Your task to perform on an android device: open chrome and create a bookmark for the current page Image 0: 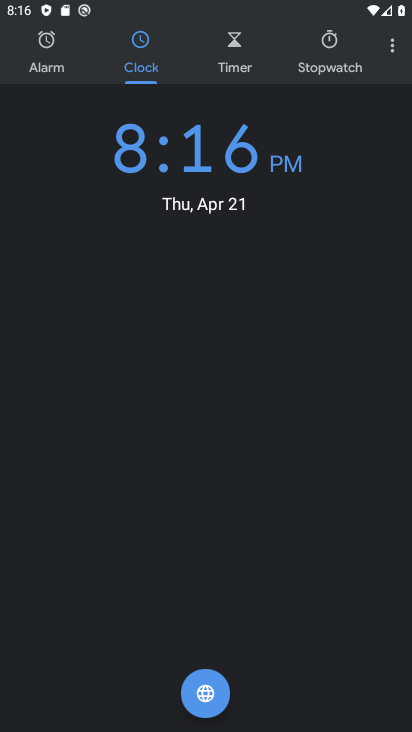
Step 0: press home button
Your task to perform on an android device: open chrome and create a bookmark for the current page Image 1: 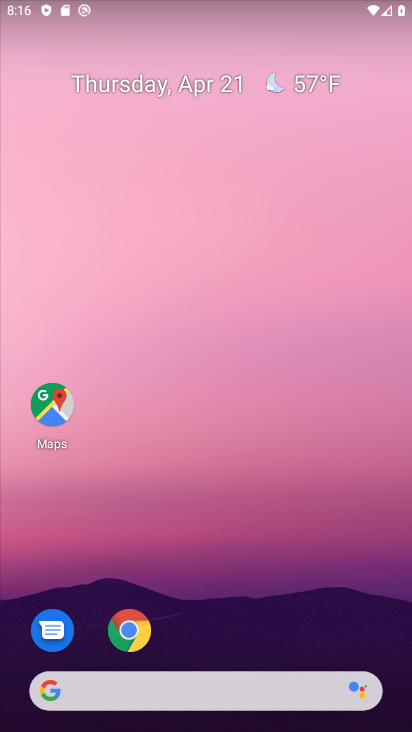
Step 1: click (118, 623)
Your task to perform on an android device: open chrome and create a bookmark for the current page Image 2: 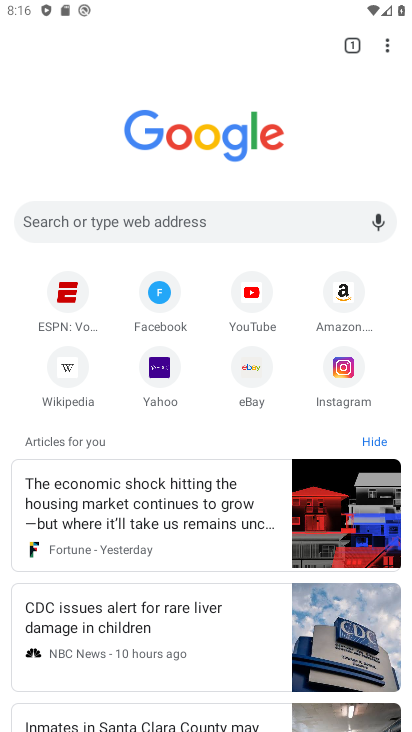
Step 2: click (187, 517)
Your task to perform on an android device: open chrome and create a bookmark for the current page Image 3: 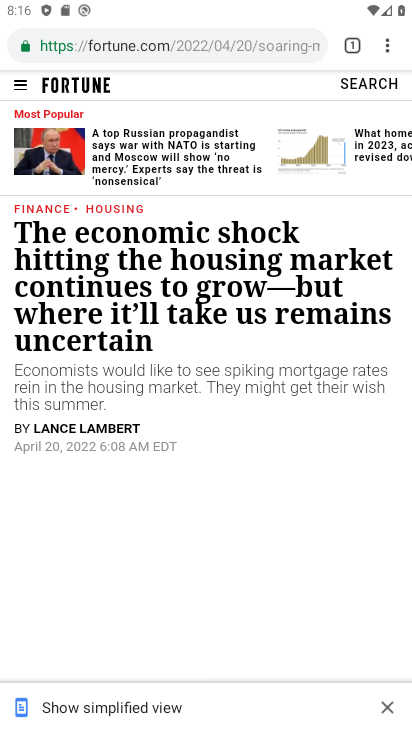
Step 3: click (386, 41)
Your task to perform on an android device: open chrome and create a bookmark for the current page Image 4: 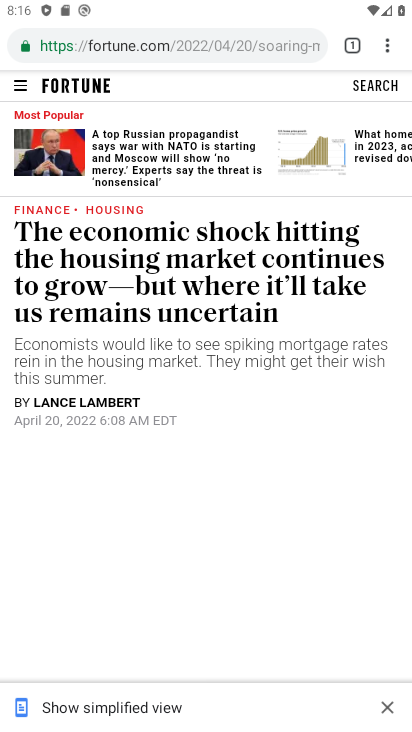
Step 4: click (387, 39)
Your task to perform on an android device: open chrome and create a bookmark for the current page Image 5: 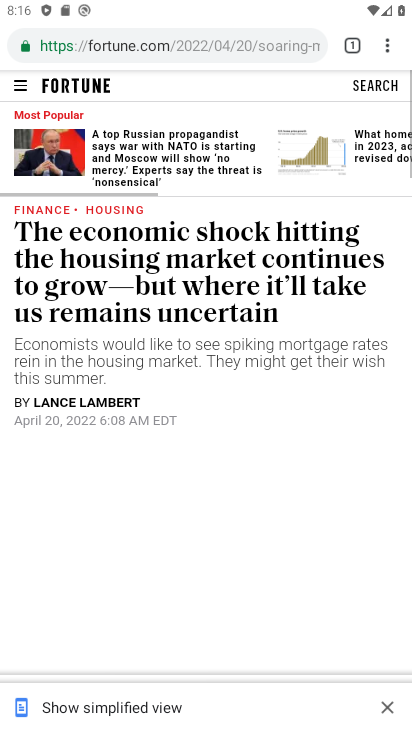
Step 5: click (389, 41)
Your task to perform on an android device: open chrome and create a bookmark for the current page Image 6: 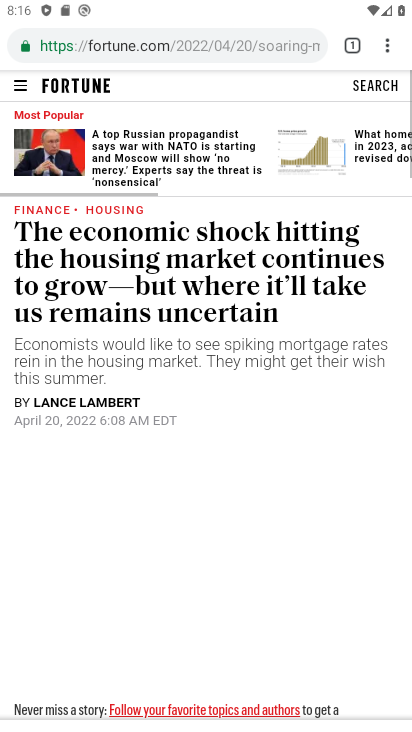
Step 6: click (383, 40)
Your task to perform on an android device: open chrome and create a bookmark for the current page Image 7: 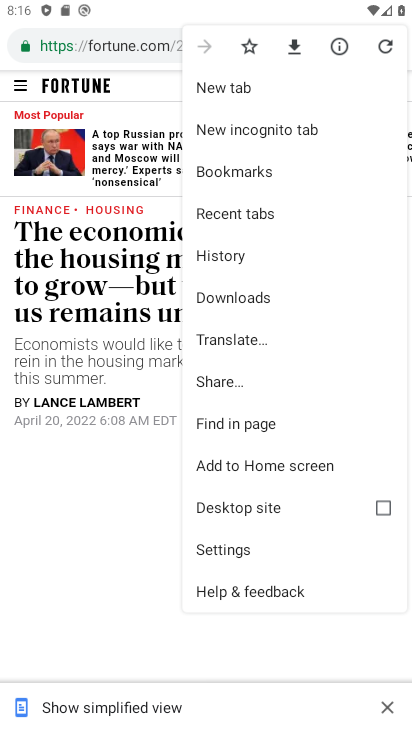
Step 7: click (243, 39)
Your task to perform on an android device: open chrome and create a bookmark for the current page Image 8: 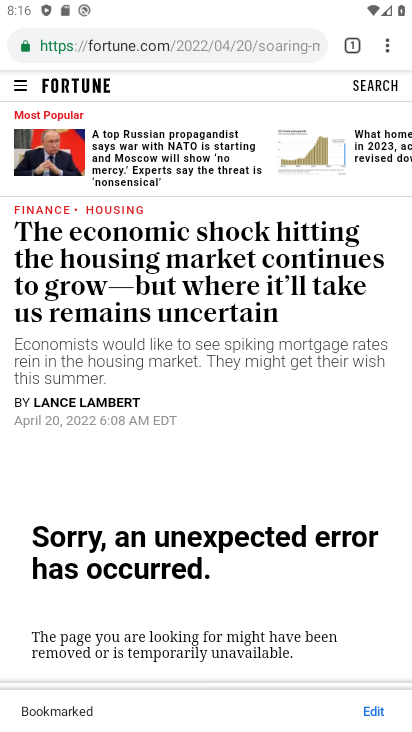
Step 8: task complete